Your task to perform on an android device: clear all cookies in the chrome app Image 0: 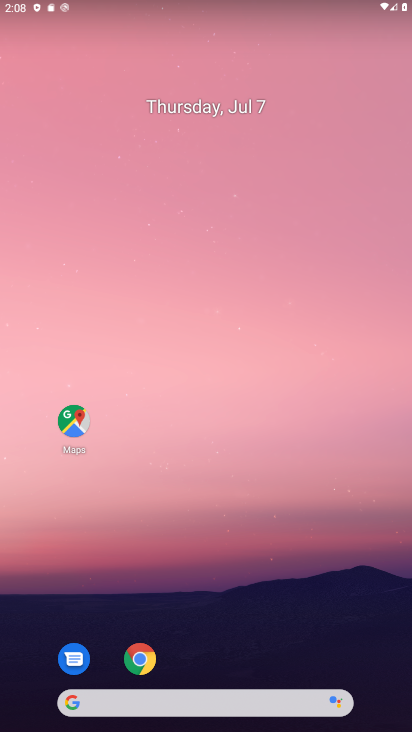
Step 0: press home button
Your task to perform on an android device: clear all cookies in the chrome app Image 1: 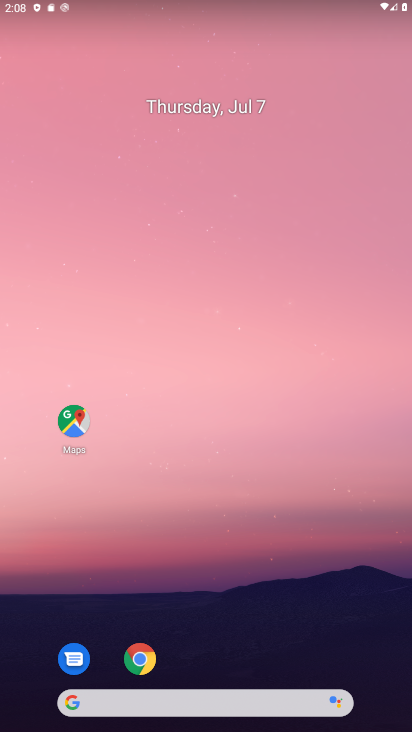
Step 1: click (146, 657)
Your task to perform on an android device: clear all cookies in the chrome app Image 2: 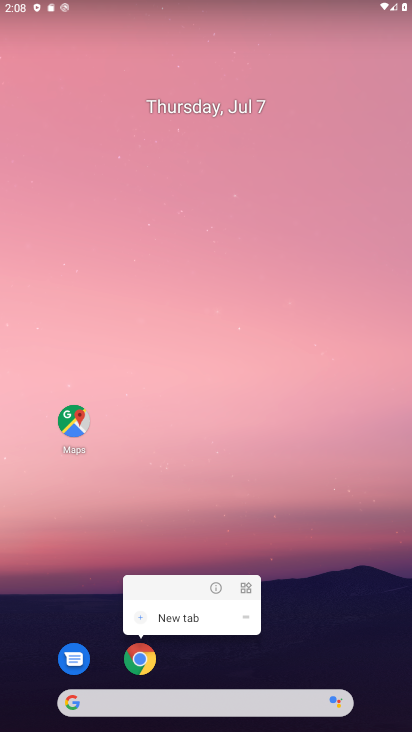
Step 2: click (146, 657)
Your task to perform on an android device: clear all cookies in the chrome app Image 3: 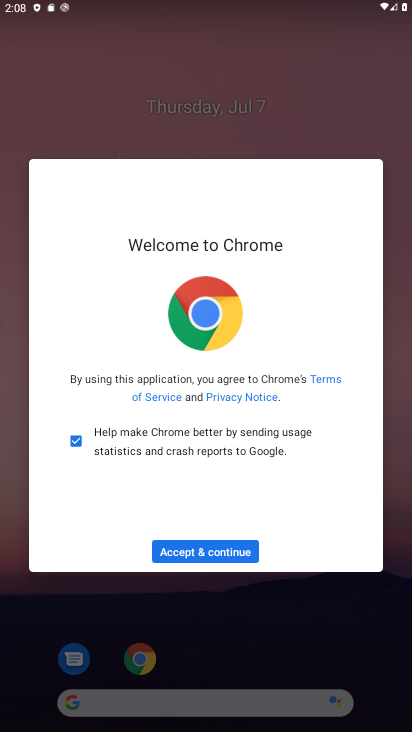
Step 3: click (206, 546)
Your task to perform on an android device: clear all cookies in the chrome app Image 4: 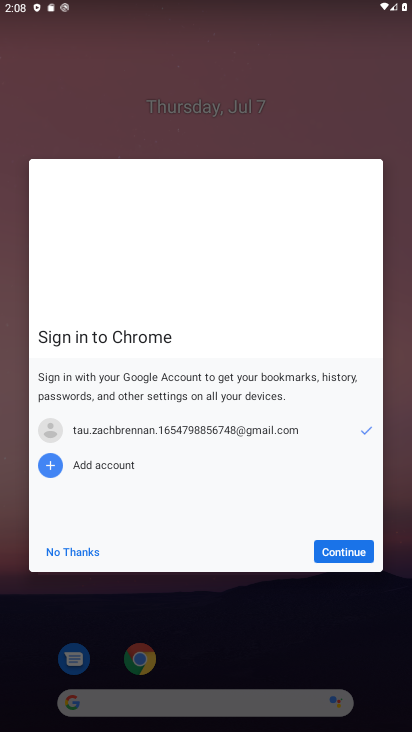
Step 4: click (340, 551)
Your task to perform on an android device: clear all cookies in the chrome app Image 5: 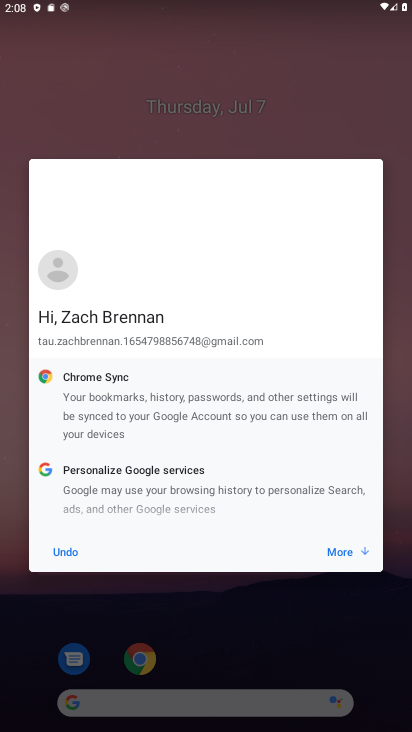
Step 5: click (340, 551)
Your task to perform on an android device: clear all cookies in the chrome app Image 6: 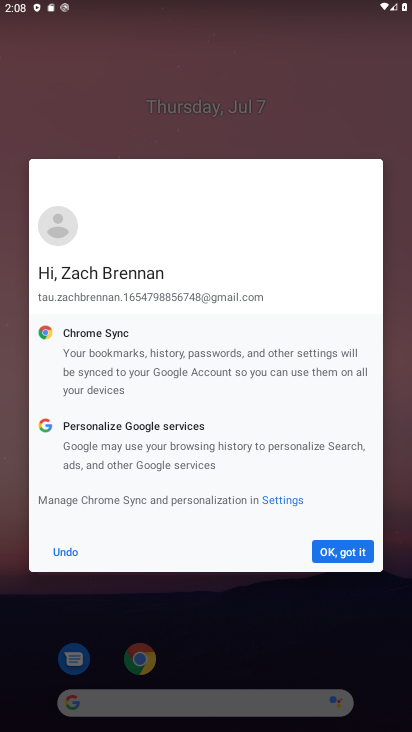
Step 6: click (340, 551)
Your task to perform on an android device: clear all cookies in the chrome app Image 7: 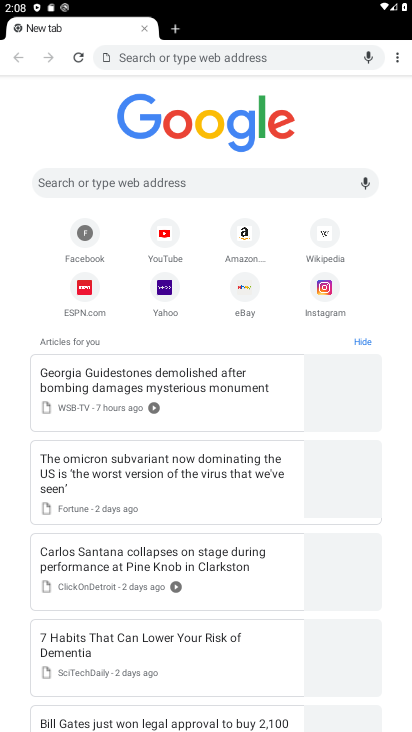
Step 7: click (400, 53)
Your task to perform on an android device: clear all cookies in the chrome app Image 8: 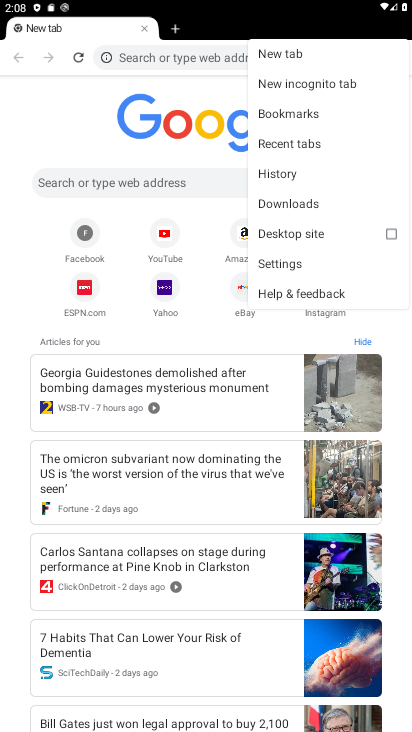
Step 8: click (297, 169)
Your task to perform on an android device: clear all cookies in the chrome app Image 9: 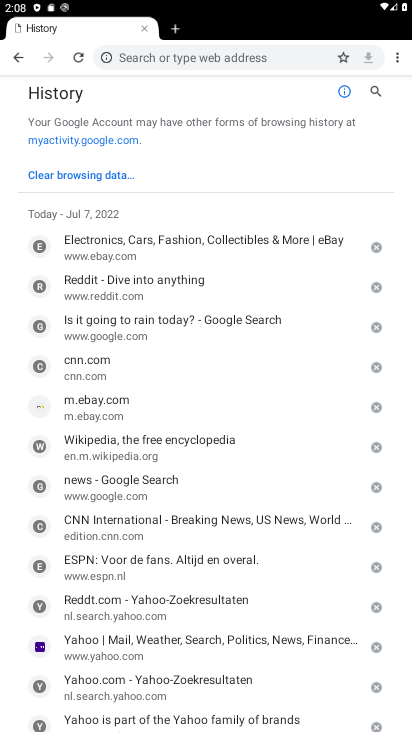
Step 9: click (80, 174)
Your task to perform on an android device: clear all cookies in the chrome app Image 10: 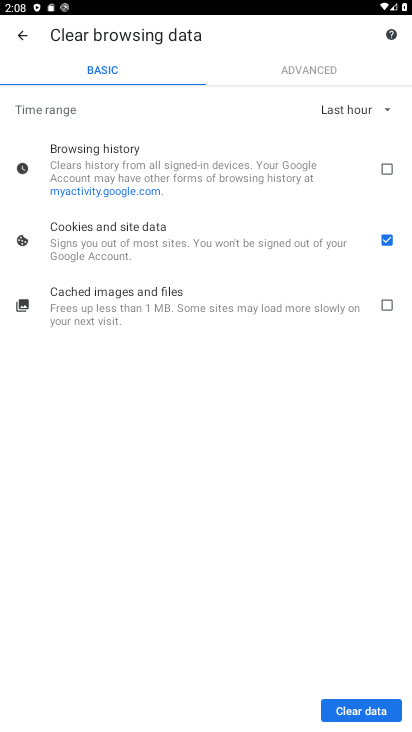
Step 10: click (387, 108)
Your task to perform on an android device: clear all cookies in the chrome app Image 11: 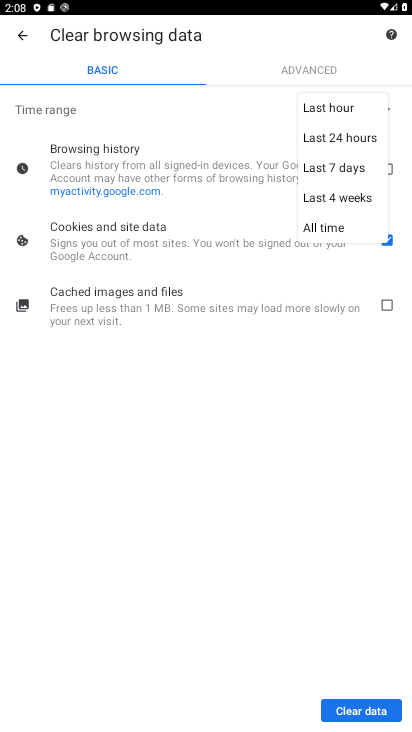
Step 11: click (337, 226)
Your task to perform on an android device: clear all cookies in the chrome app Image 12: 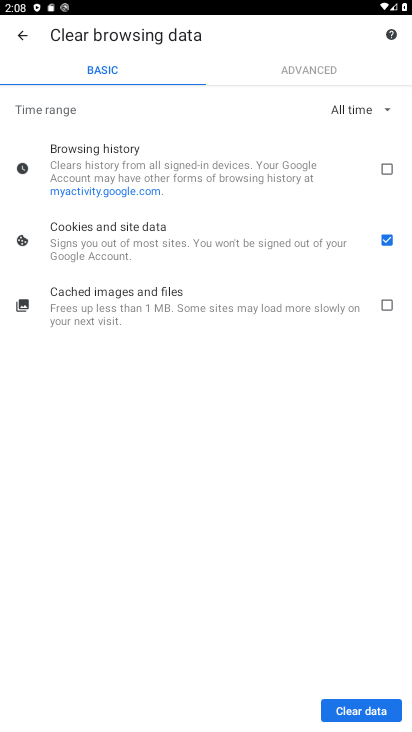
Step 12: click (365, 716)
Your task to perform on an android device: clear all cookies in the chrome app Image 13: 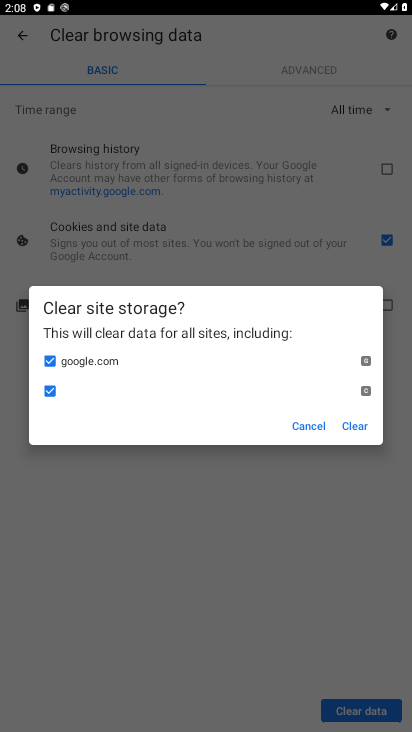
Step 13: click (353, 427)
Your task to perform on an android device: clear all cookies in the chrome app Image 14: 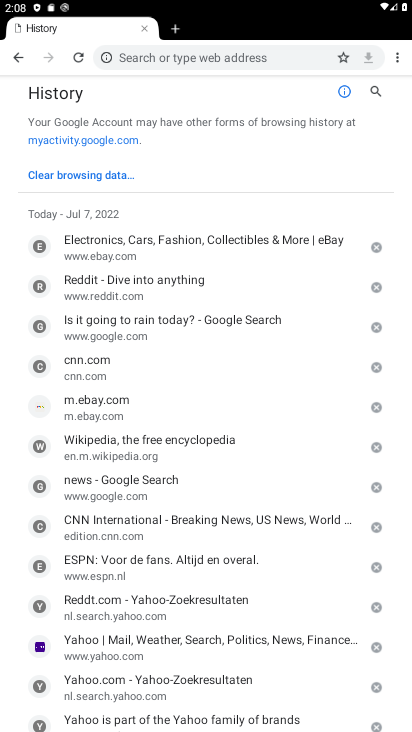
Step 14: task complete